Your task to perform on an android device: snooze an email in the gmail app Image 0: 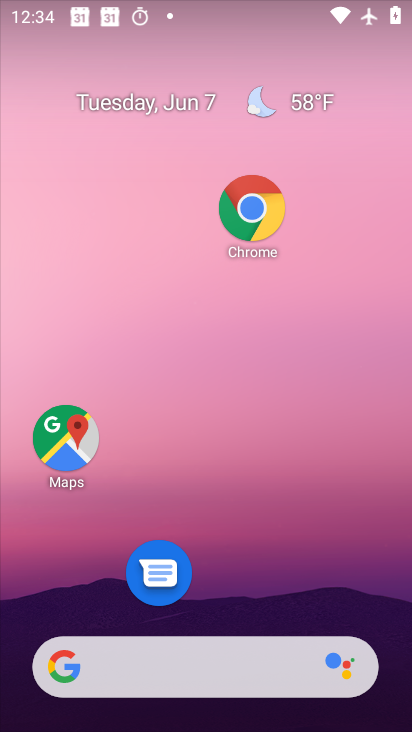
Step 0: drag from (224, 588) to (208, 175)
Your task to perform on an android device: snooze an email in the gmail app Image 1: 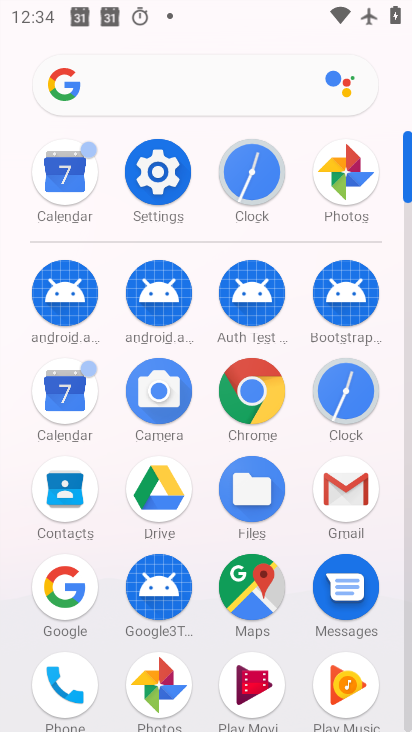
Step 1: click (346, 506)
Your task to perform on an android device: snooze an email in the gmail app Image 2: 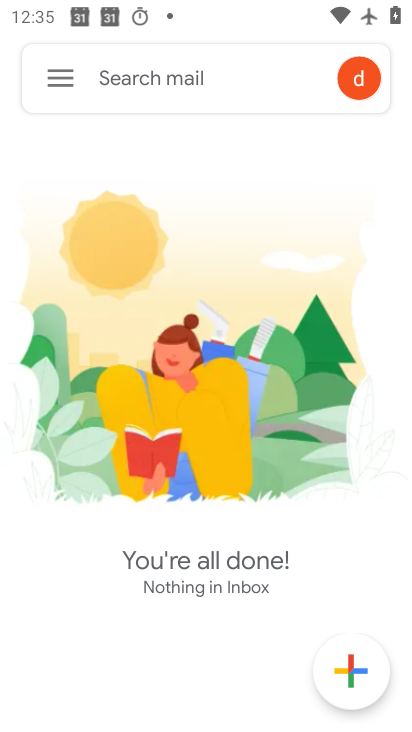
Step 2: click (39, 66)
Your task to perform on an android device: snooze an email in the gmail app Image 3: 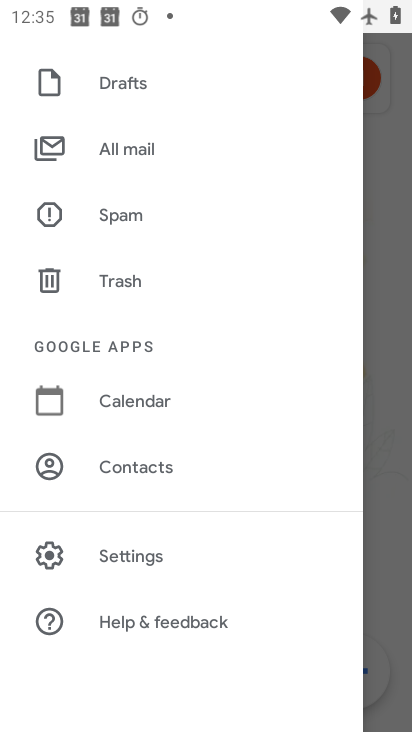
Step 3: click (138, 136)
Your task to perform on an android device: snooze an email in the gmail app Image 4: 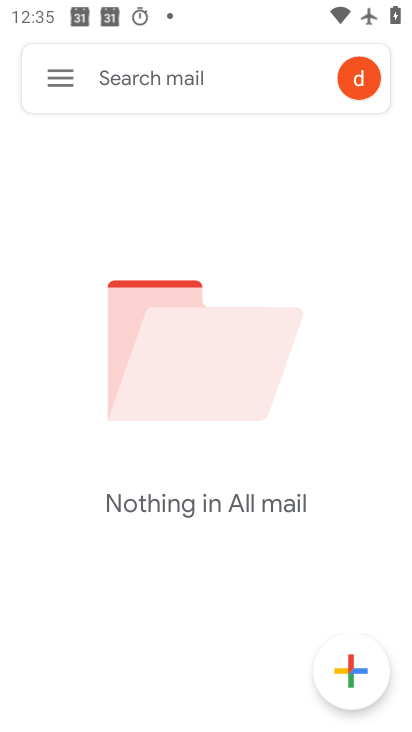
Step 4: click (66, 76)
Your task to perform on an android device: snooze an email in the gmail app Image 5: 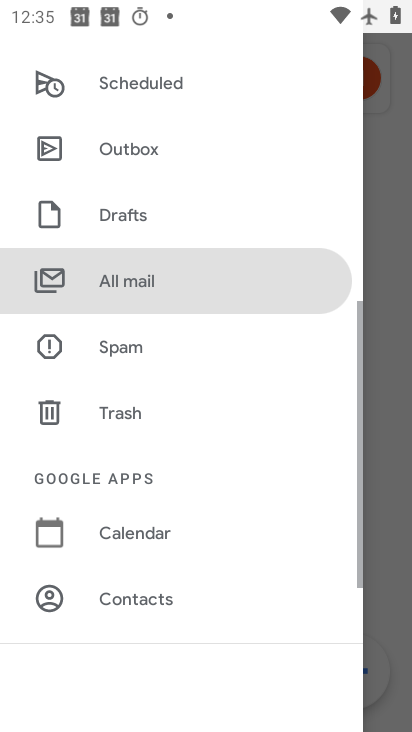
Step 5: click (135, 277)
Your task to perform on an android device: snooze an email in the gmail app Image 6: 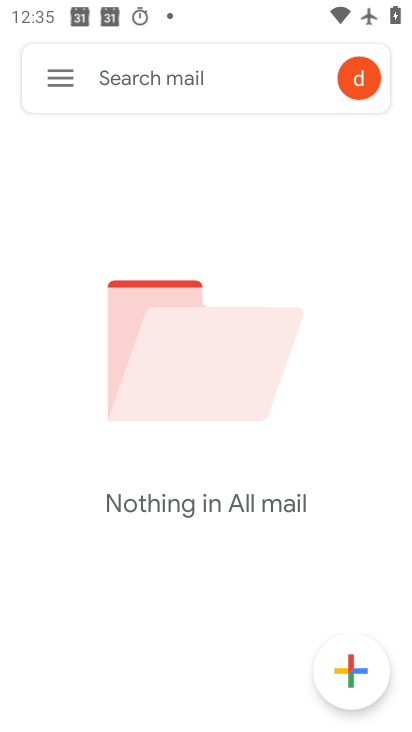
Step 6: task complete